Your task to perform on an android device: What is the news today? Image 0: 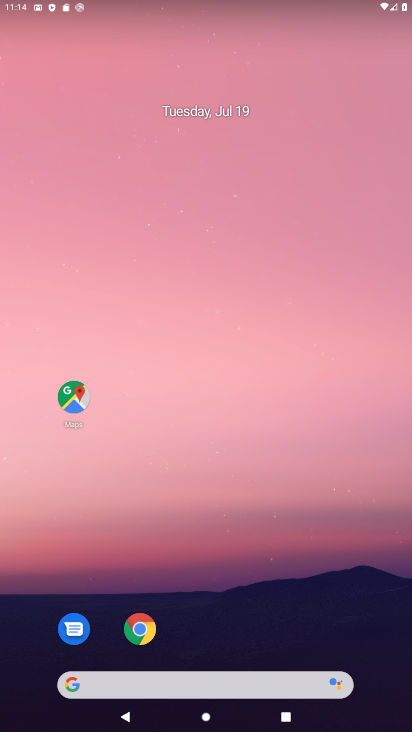
Step 0: drag from (315, 546) to (243, 12)
Your task to perform on an android device: What is the news today? Image 1: 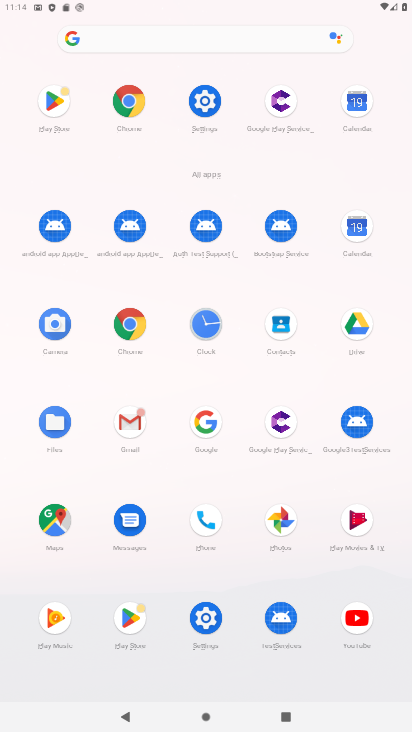
Step 1: click (130, 110)
Your task to perform on an android device: What is the news today? Image 2: 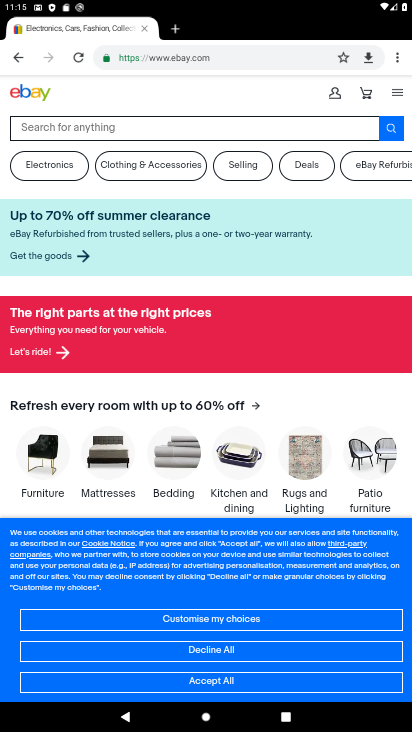
Step 2: task complete